Your task to perform on an android device: open wifi settings Image 0: 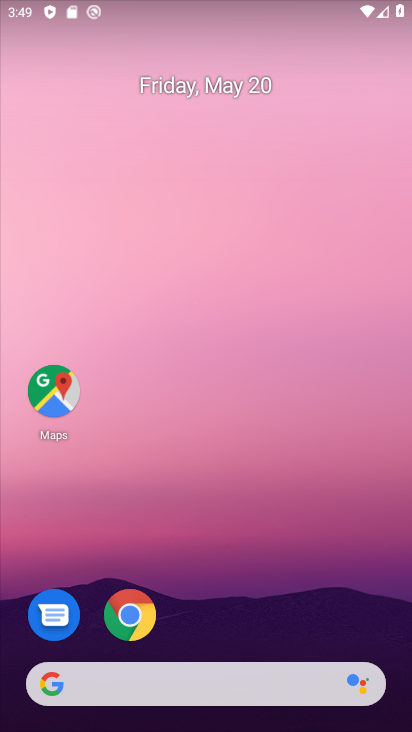
Step 0: drag from (221, 626) to (285, 109)
Your task to perform on an android device: open wifi settings Image 1: 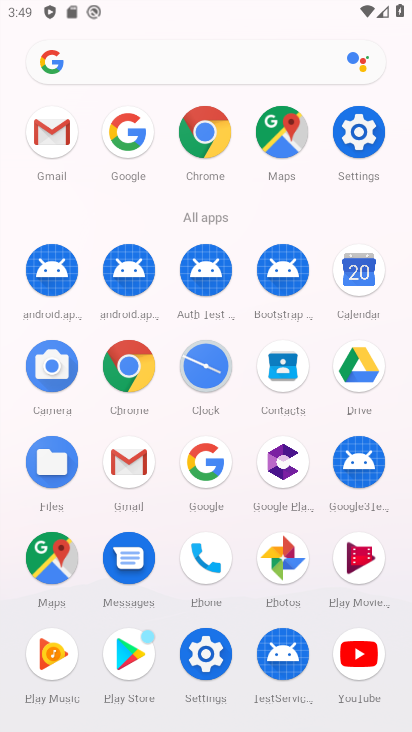
Step 1: click (371, 150)
Your task to perform on an android device: open wifi settings Image 2: 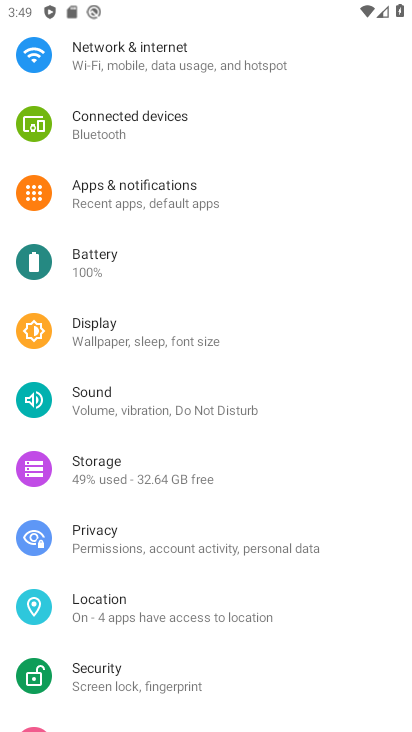
Step 2: drag from (255, 224) to (194, 678)
Your task to perform on an android device: open wifi settings Image 3: 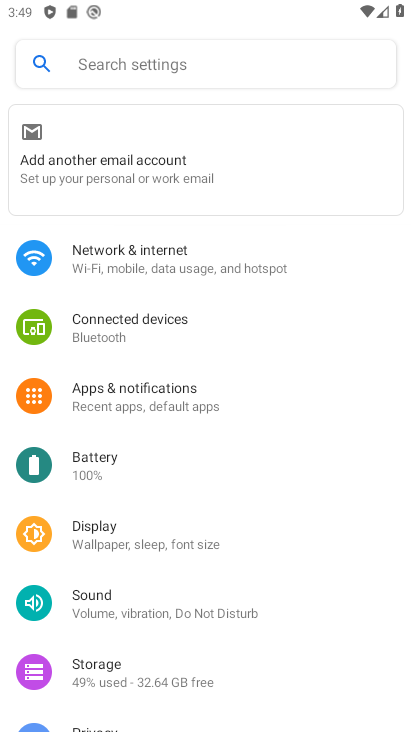
Step 3: drag from (198, 327) to (181, 601)
Your task to perform on an android device: open wifi settings Image 4: 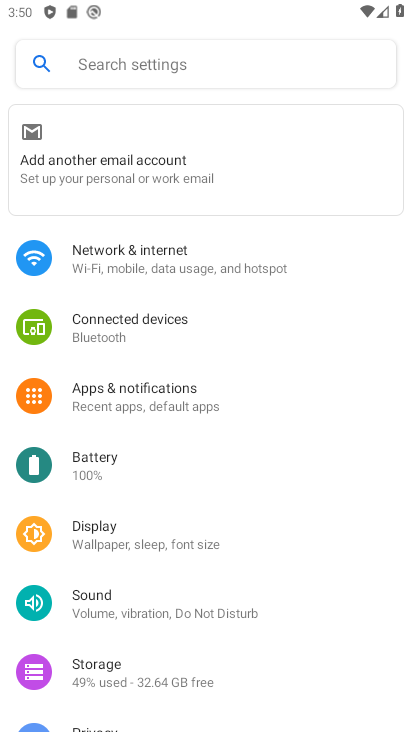
Step 4: click (209, 275)
Your task to perform on an android device: open wifi settings Image 5: 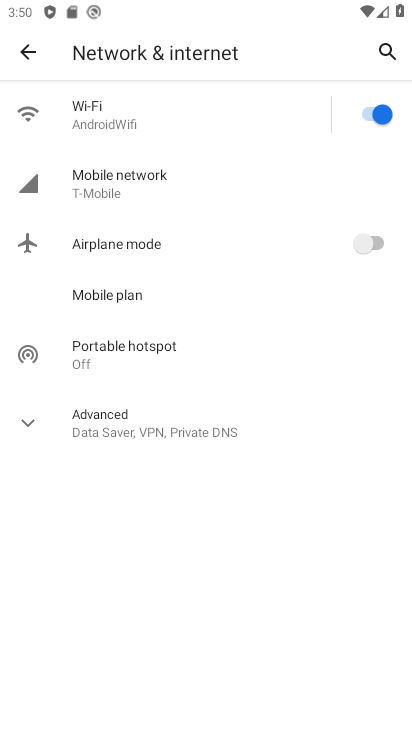
Step 5: click (188, 128)
Your task to perform on an android device: open wifi settings Image 6: 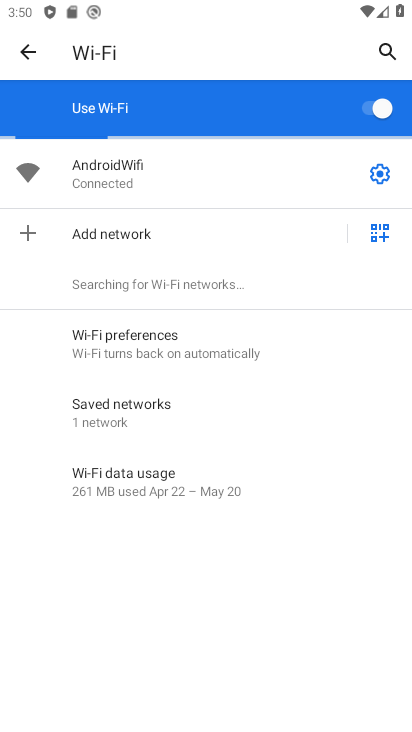
Step 6: task complete